Your task to perform on an android device: toggle data saver in the chrome app Image 0: 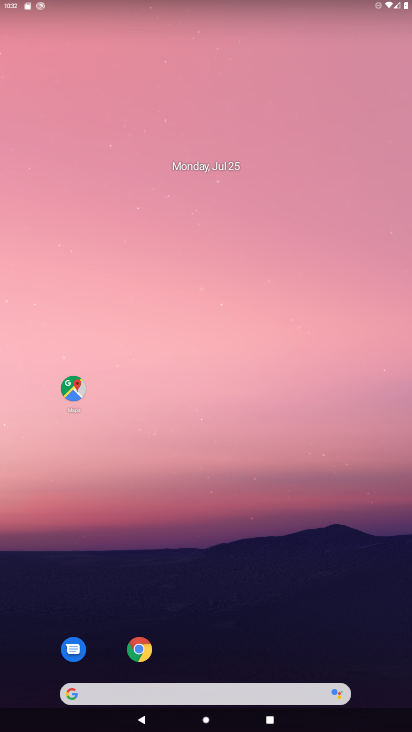
Step 0: click (136, 648)
Your task to perform on an android device: toggle data saver in the chrome app Image 1: 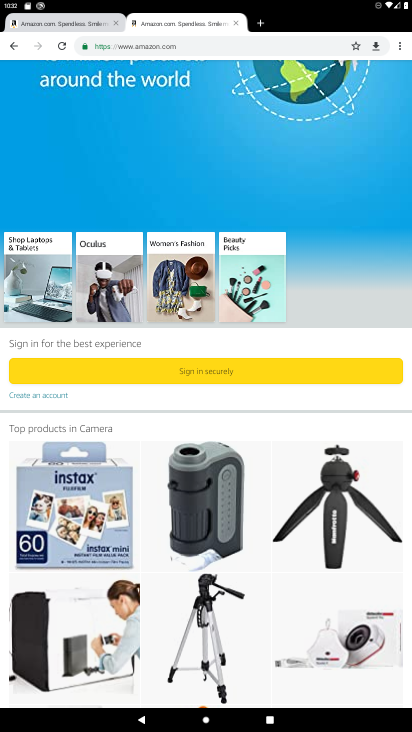
Step 1: click (400, 51)
Your task to perform on an android device: toggle data saver in the chrome app Image 2: 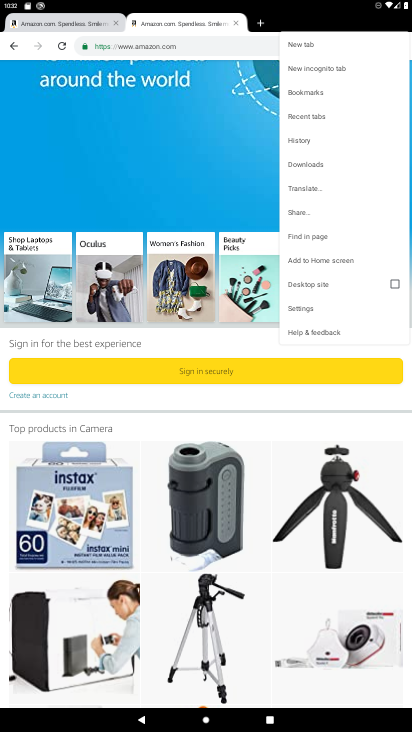
Step 2: click (298, 308)
Your task to perform on an android device: toggle data saver in the chrome app Image 3: 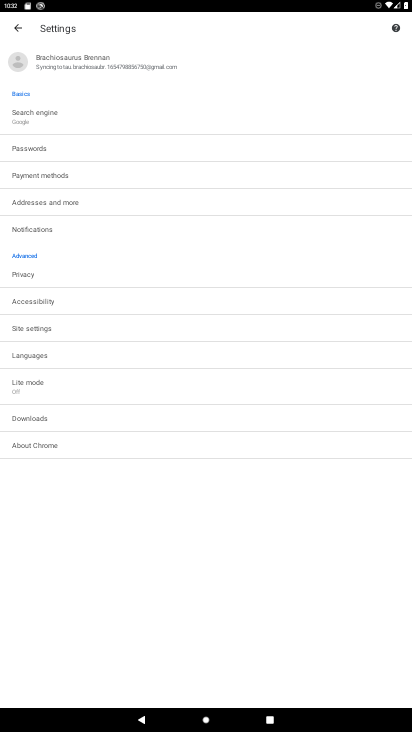
Step 3: click (24, 384)
Your task to perform on an android device: toggle data saver in the chrome app Image 4: 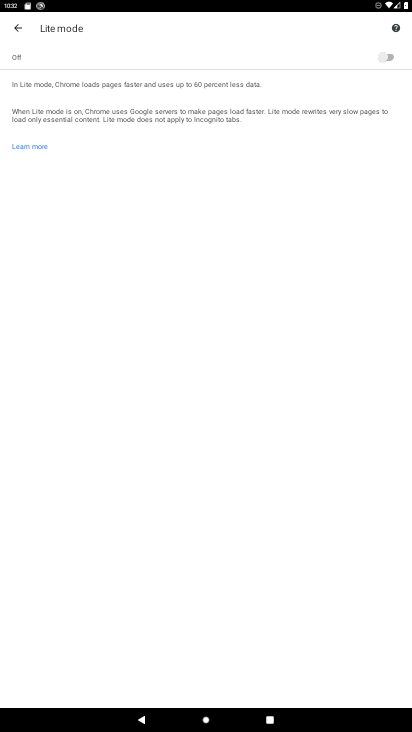
Step 4: click (395, 53)
Your task to perform on an android device: toggle data saver in the chrome app Image 5: 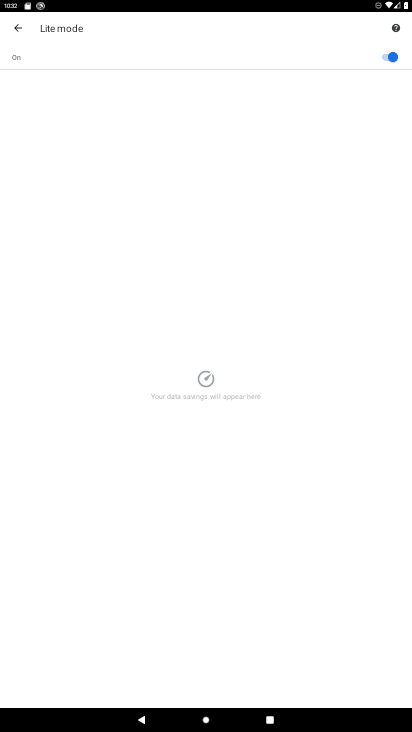
Step 5: task complete